Your task to perform on an android device: open a bookmark in the chrome app Image 0: 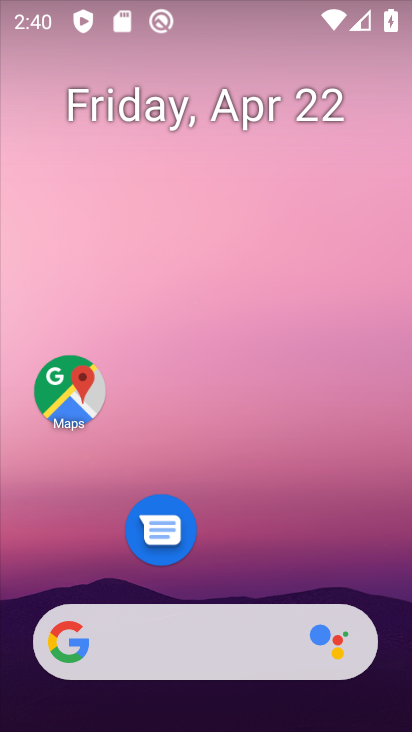
Step 0: drag from (280, 547) to (282, 26)
Your task to perform on an android device: open a bookmark in the chrome app Image 1: 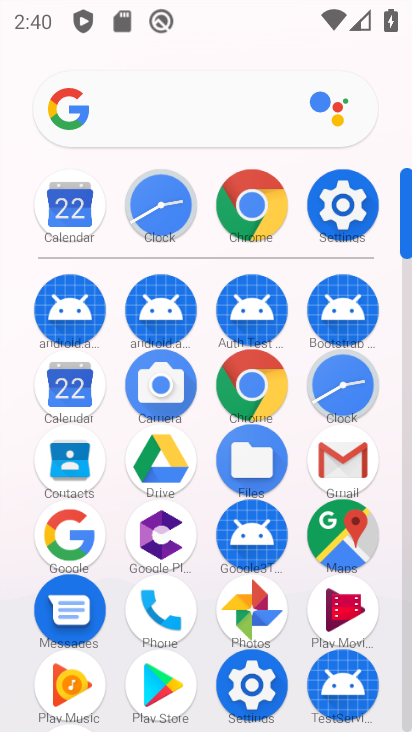
Step 1: click (240, 212)
Your task to perform on an android device: open a bookmark in the chrome app Image 2: 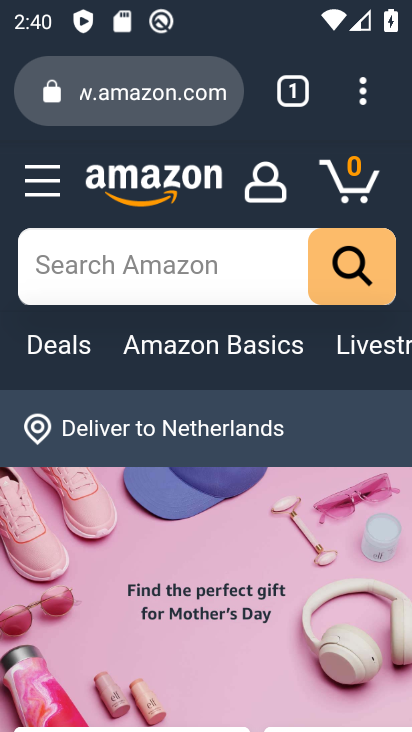
Step 2: click (363, 100)
Your task to perform on an android device: open a bookmark in the chrome app Image 3: 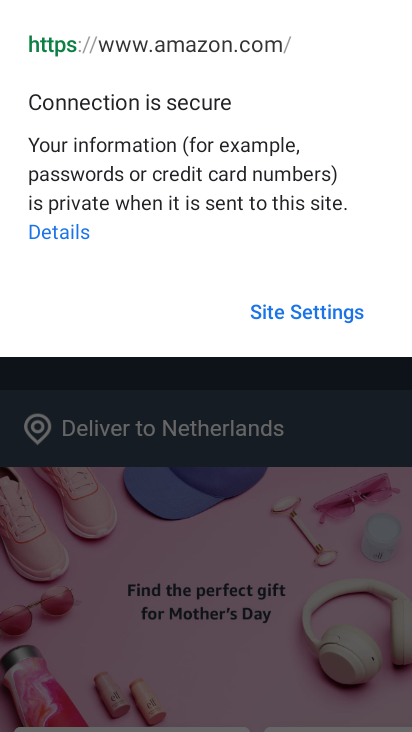
Step 3: click (272, 366)
Your task to perform on an android device: open a bookmark in the chrome app Image 4: 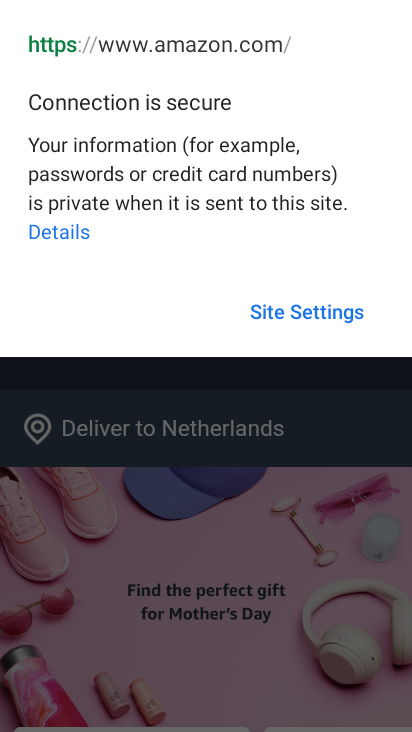
Step 4: click (324, 383)
Your task to perform on an android device: open a bookmark in the chrome app Image 5: 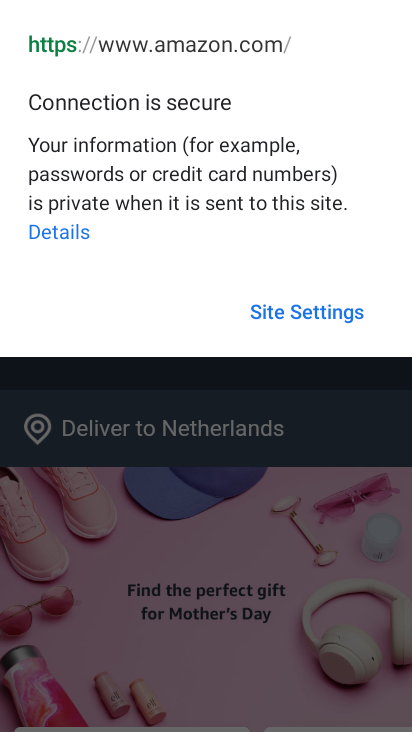
Step 5: click (139, 390)
Your task to perform on an android device: open a bookmark in the chrome app Image 6: 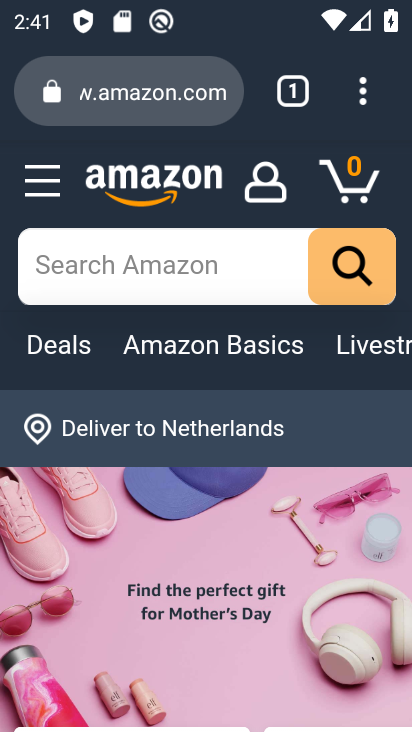
Step 6: click (359, 98)
Your task to perform on an android device: open a bookmark in the chrome app Image 7: 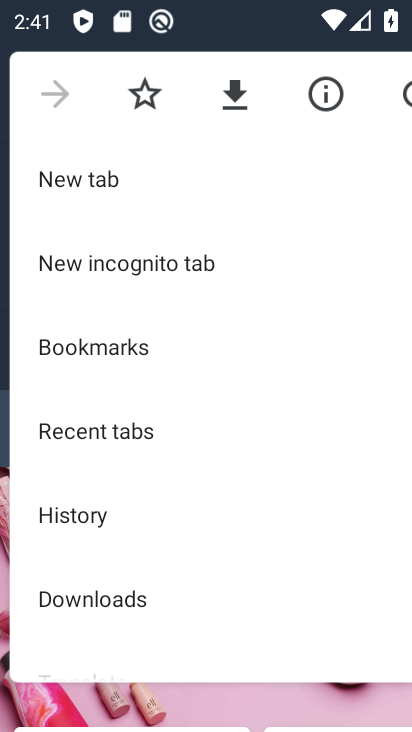
Step 7: click (79, 349)
Your task to perform on an android device: open a bookmark in the chrome app Image 8: 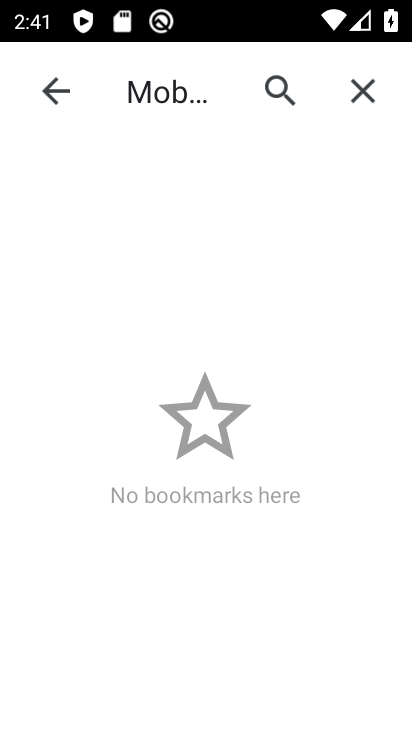
Step 8: task complete